Your task to perform on an android device: see tabs open on other devices in the chrome app Image 0: 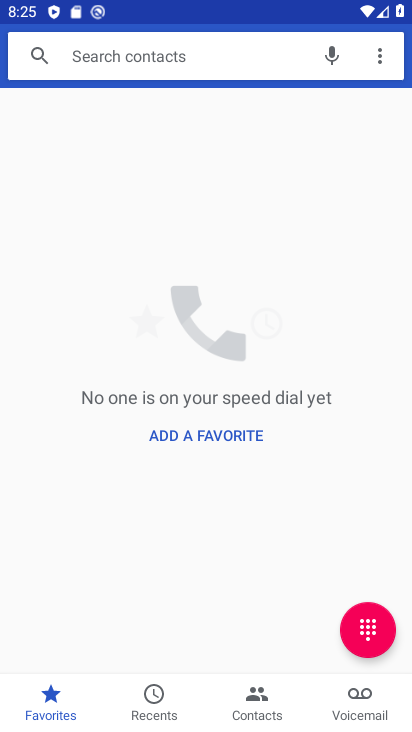
Step 0: press back button
Your task to perform on an android device: see tabs open on other devices in the chrome app Image 1: 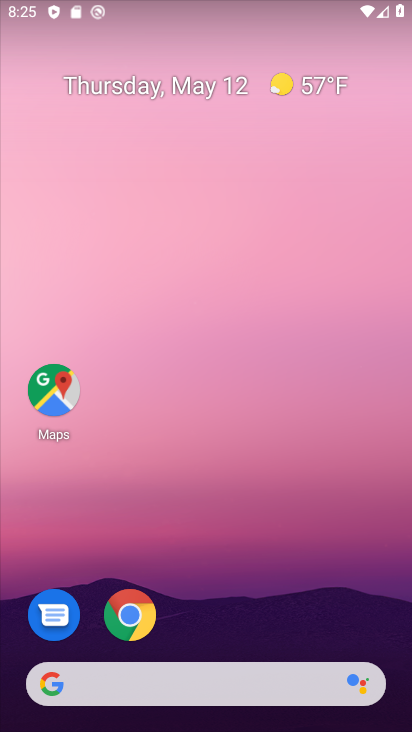
Step 1: drag from (255, 555) to (226, 25)
Your task to perform on an android device: see tabs open on other devices in the chrome app Image 2: 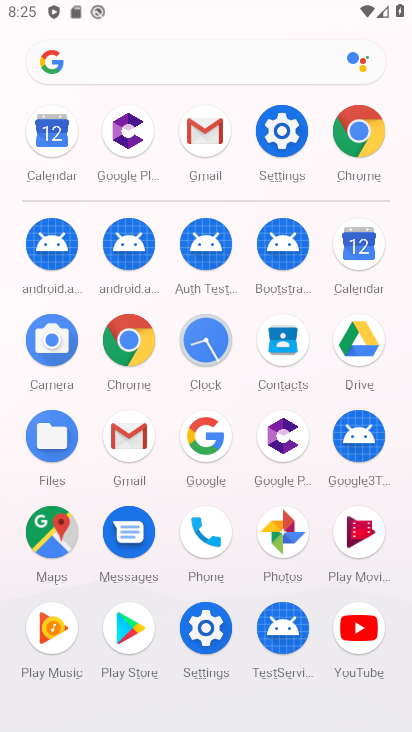
Step 2: drag from (11, 527) to (12, 231)
Your task to perform on an android device: see tabs open on other devices in the chrome app Image 3: 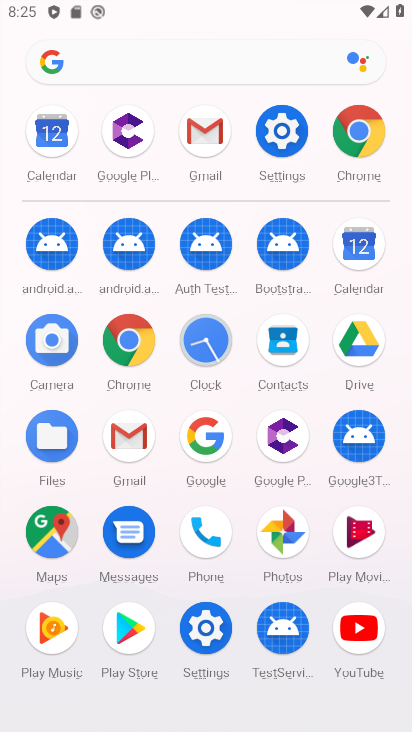
Step 3: click (126, 338)
Your task to perform on an android device: see tabs open on other devices in the chrome app Image 4: 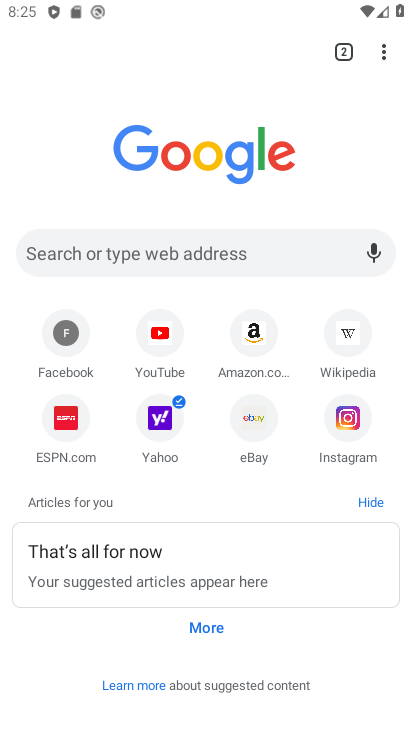
Step 4: task complete